Your task to perform on an android device: What is the news today? Image 0: 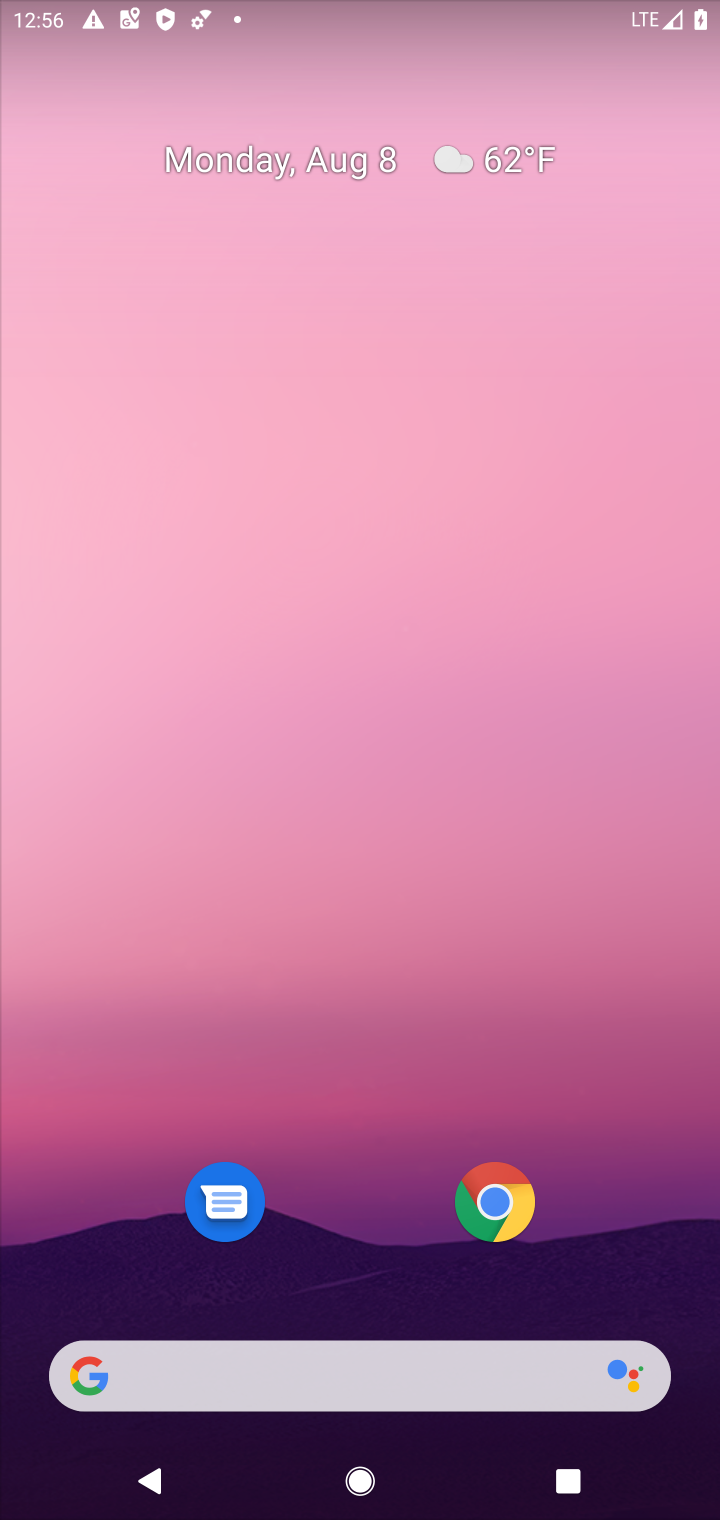
Step 0: click (388, 1371)
Your task to perform on an android device: What is the news today? Image 1: 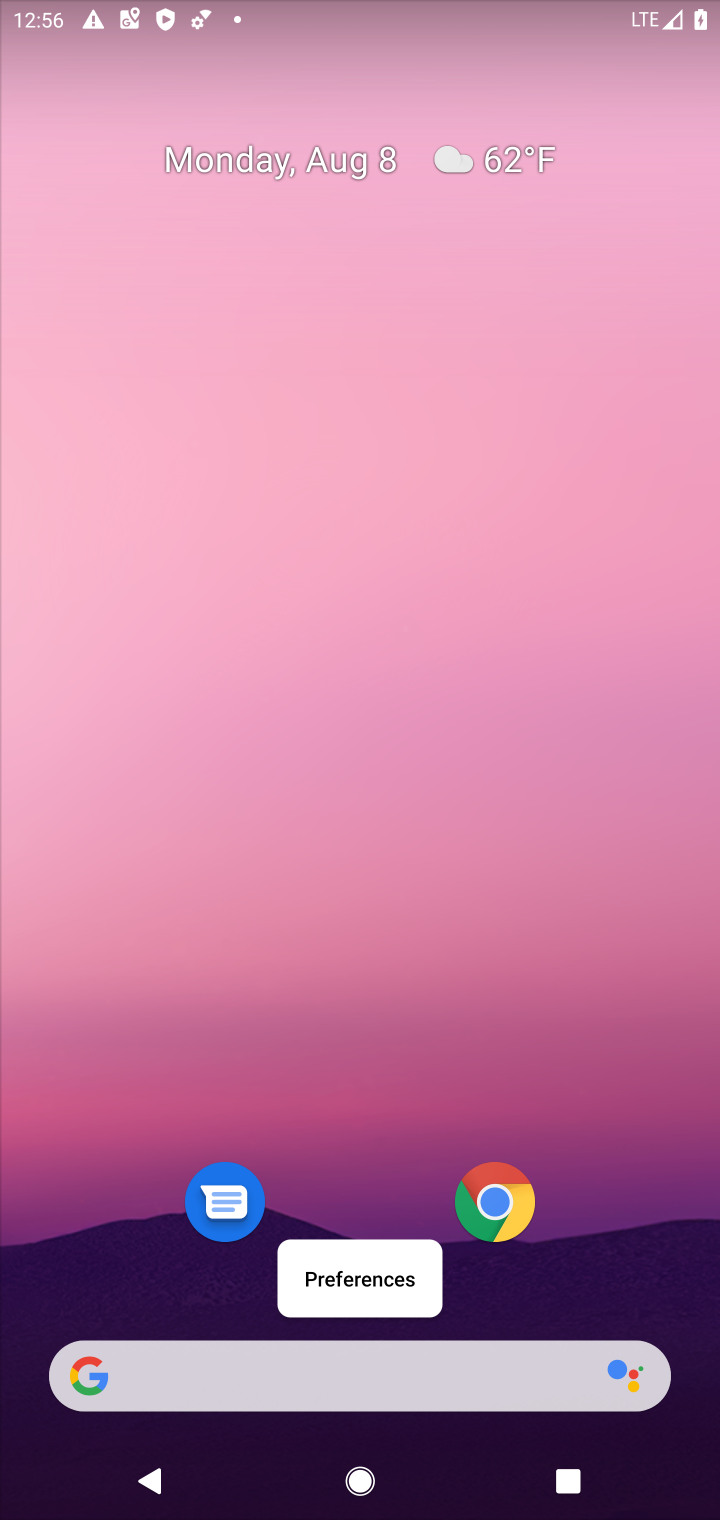
Step 1: click (388, 1371)
Your task to perform on an android device: What is the news today? Image 2: 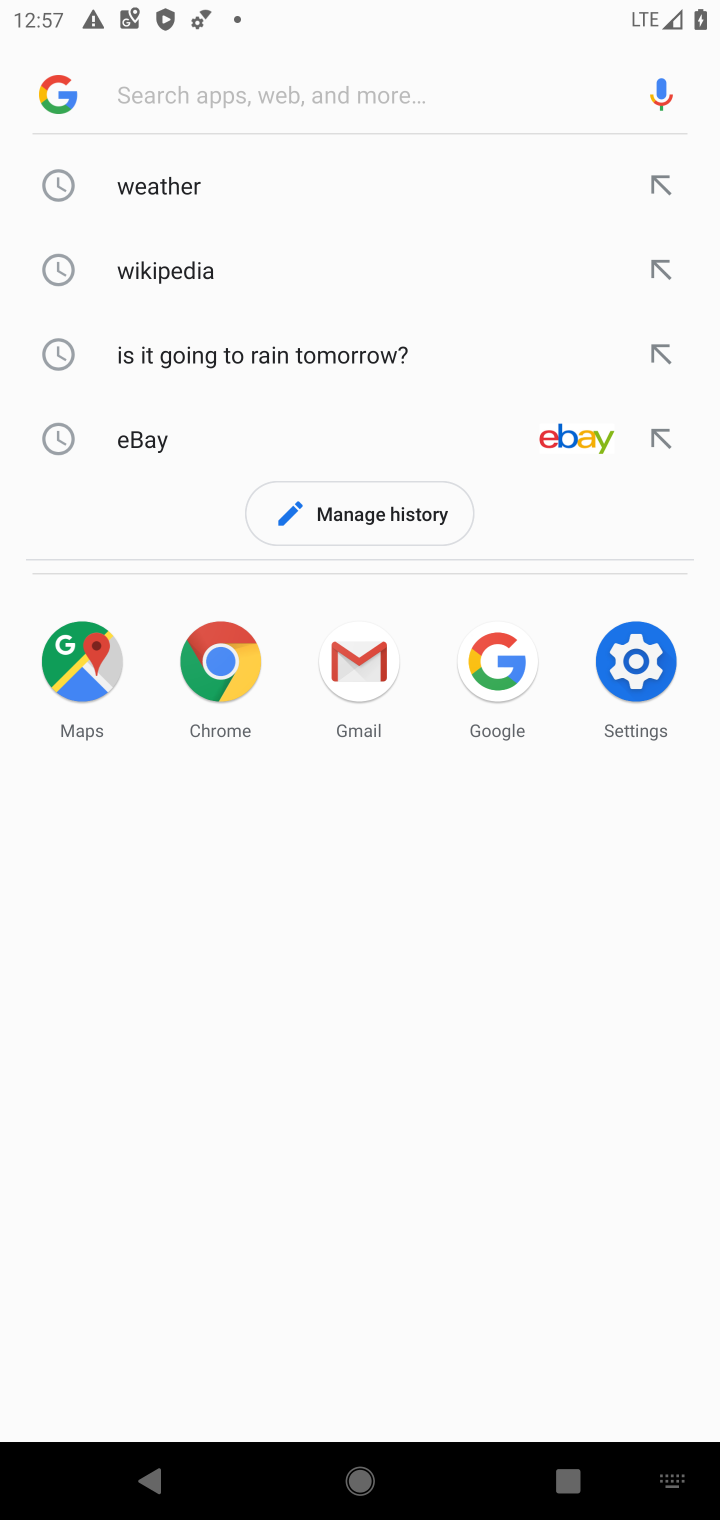
Step 2: type "news today"
Your task to perform on an android device: What is the news today? Image 3: 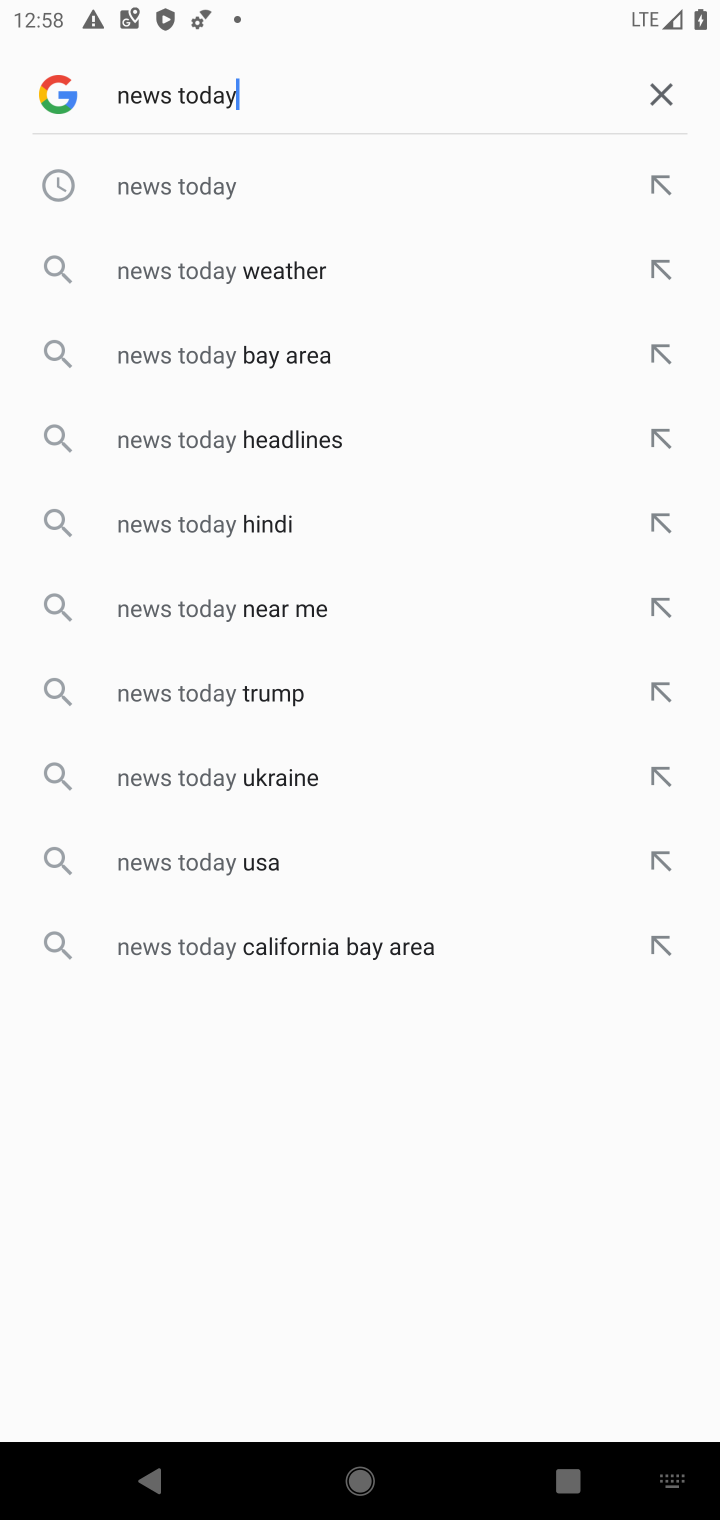
Step 3: click (234, 199)
Your task to perform on an android device: What is the news today? Image 4: 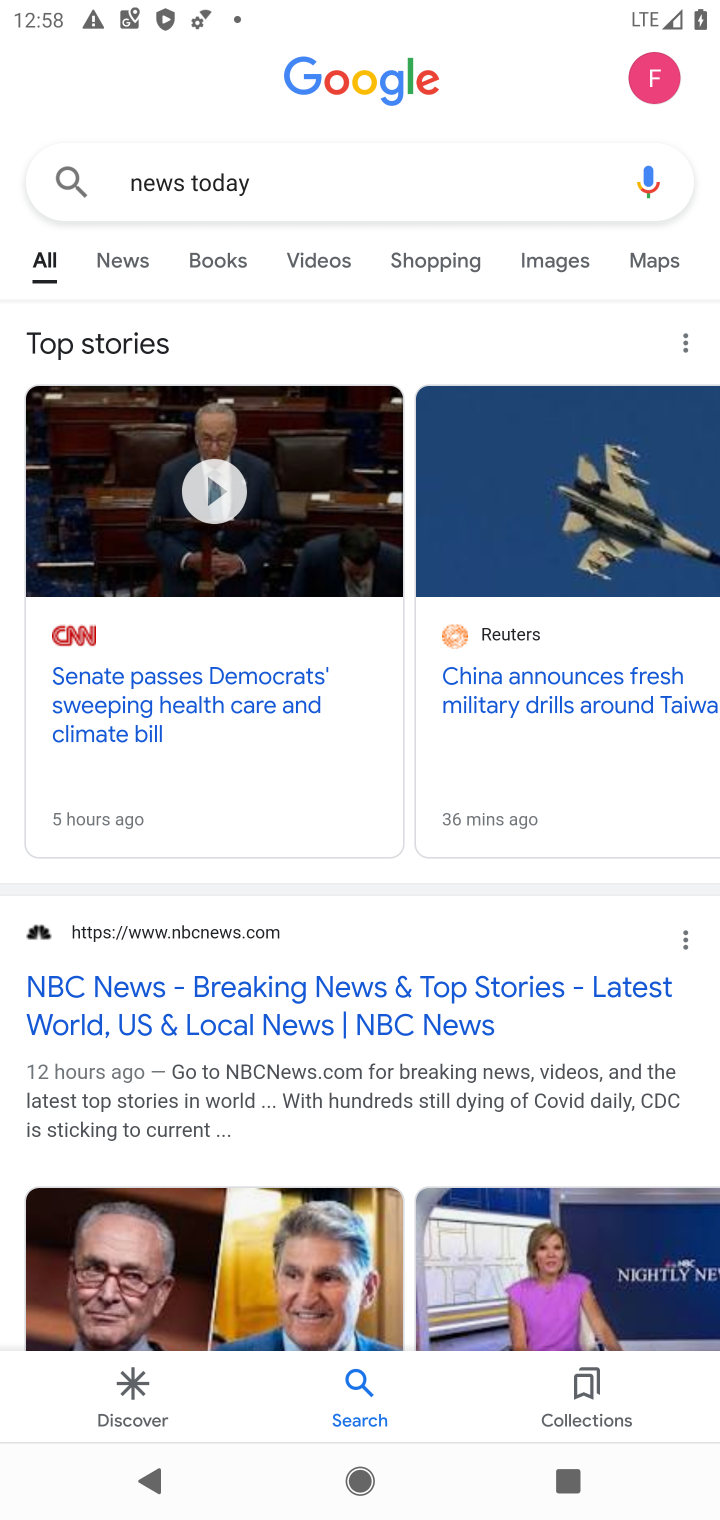
Step 4: task complete